Your task to perform on an android device: change text size in settings app Image 0: 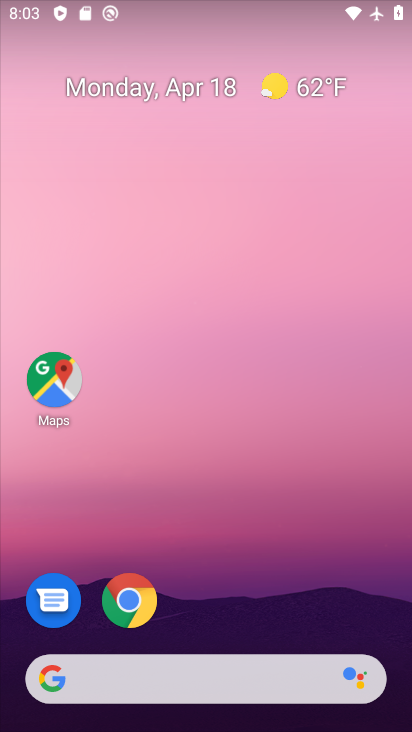
Step 0: drag from (215, 630) to (220, 5)
Your task to perform on an android device: change text size in settings app Image 1: 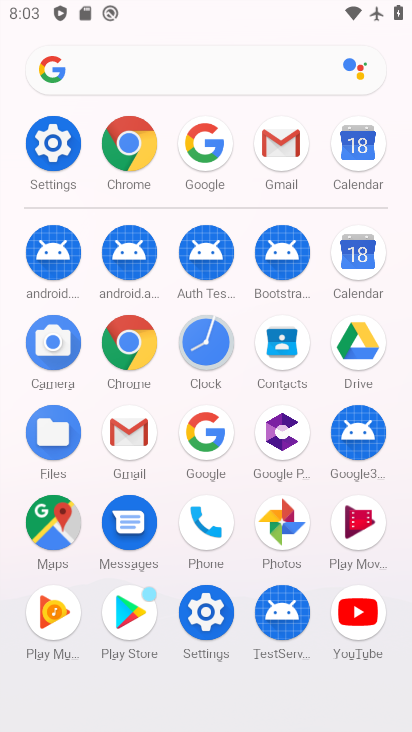
Step 1: click (62, 154)
Your task to perform on an android device: change text size in settings app Image 2: 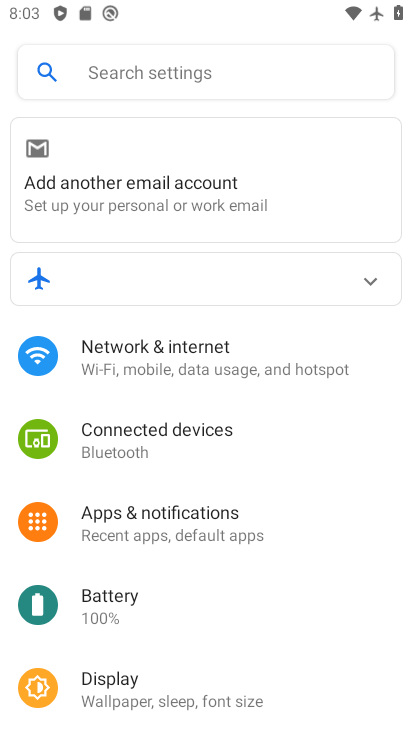
Step 2: click (135, 670)
Your task to perform on an android device: change text size in settings app Image 3: 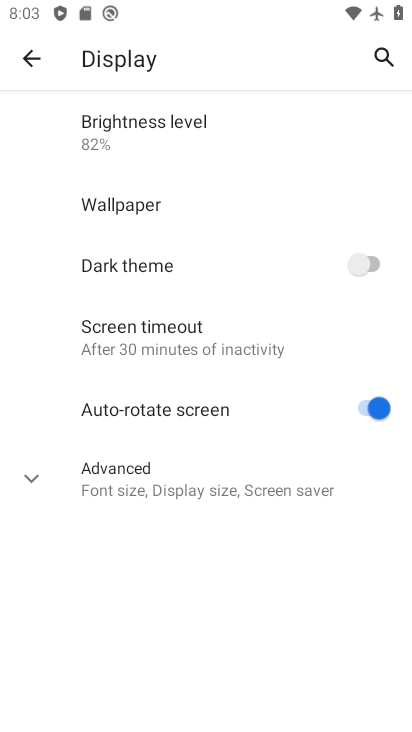
Step 3: click (141, 491)
Your task to perform on an android device: change text size in settings app Image 4: 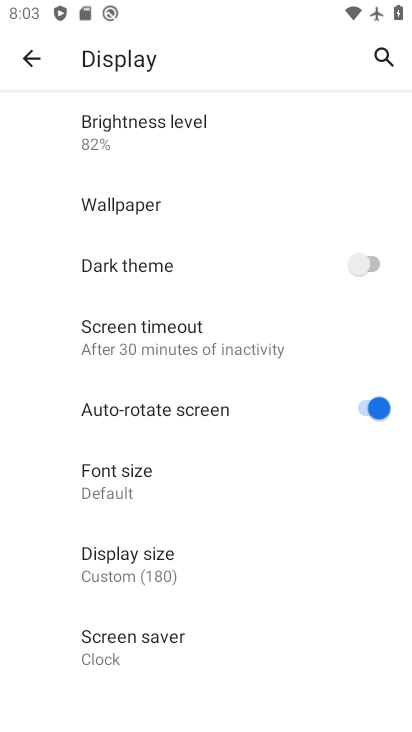
Step 4: click (136, 492)
Your task to perform on an android device: change text size in settings app Image 5: 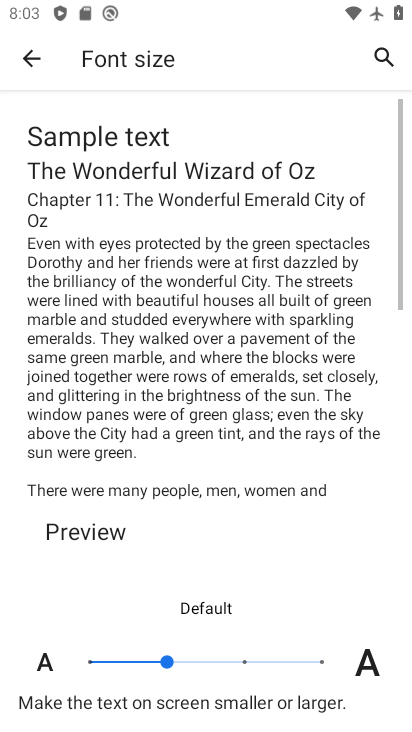
Step 5: click (243, 658)
Your task to perform on an android device: change text size in settings app Image 6: 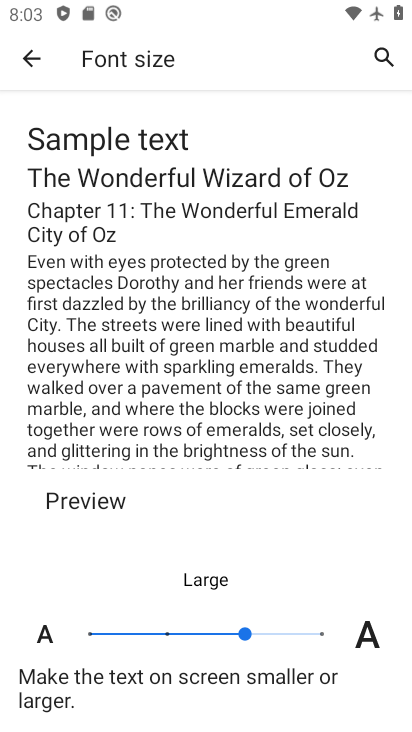
Step 6: task complete